Your task to perform on an android device: Go to eBay Image 0: 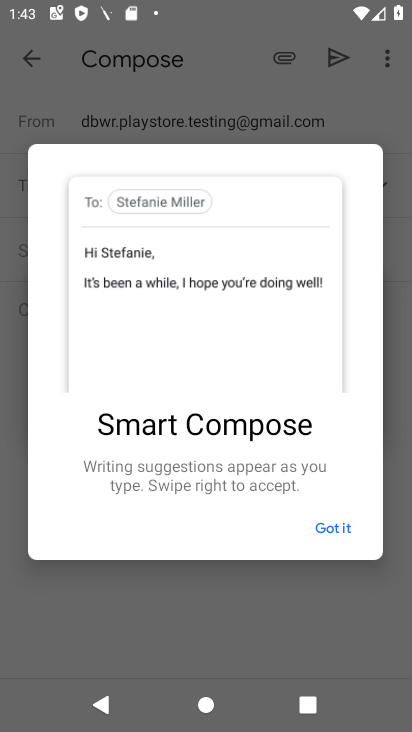
Step 0: press home button
Your task to perform on an android device: Go to eBay Image 1: 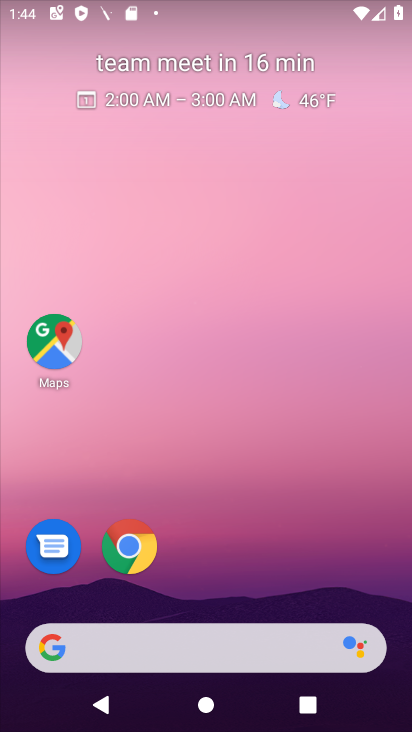
Step 1: click (130, 543)
Your task to perform on an android device: Go to eBay Image 2: 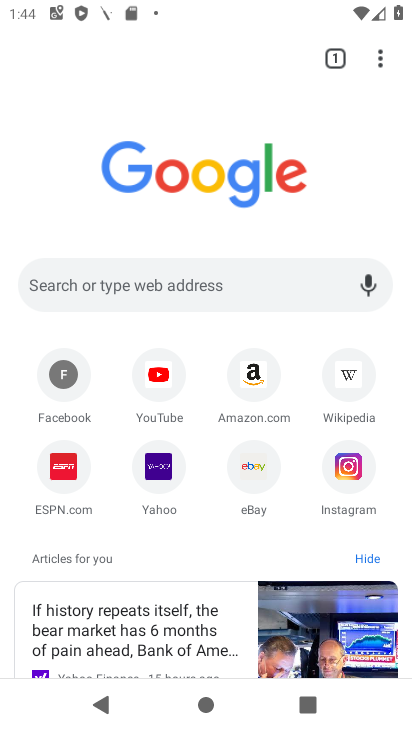
Step 2: click (117, 272)
Your task to perform on an android device: Go to eBay Image 3: 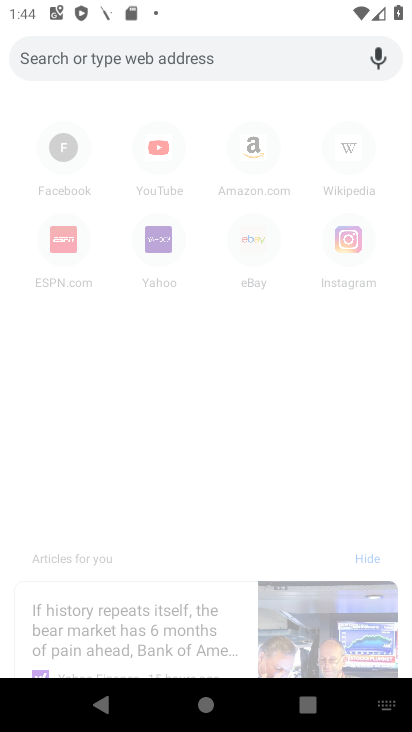
Step 3: type "ebay"
Your task to perform on an android device: Go to eBay Image 4: 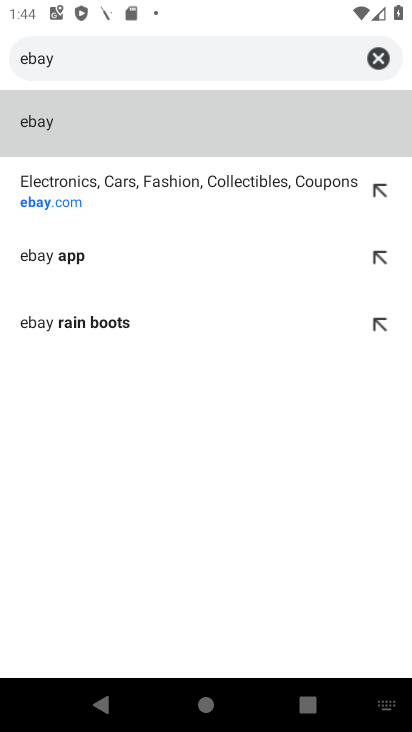
Step 4: click (46, 184)
Your task to perform on an android device: Go to eBay Image 5: 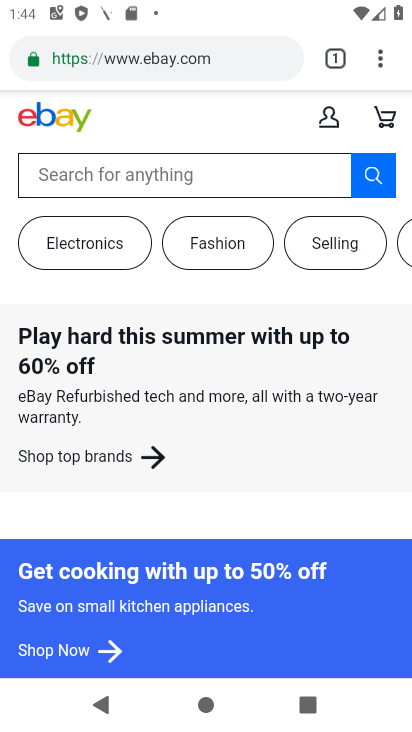
Step 5: task complete